Your task to perform on an android device: Do I have any events today? Image 0: 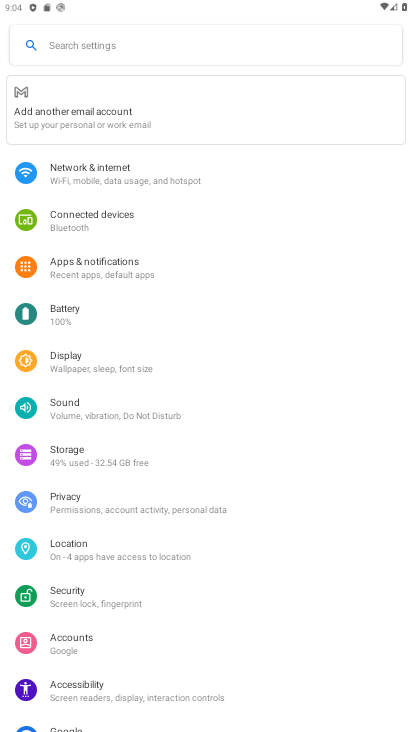
Step 0: press home button
Your task to perform on an android device: Do I have any events today? Image 1: 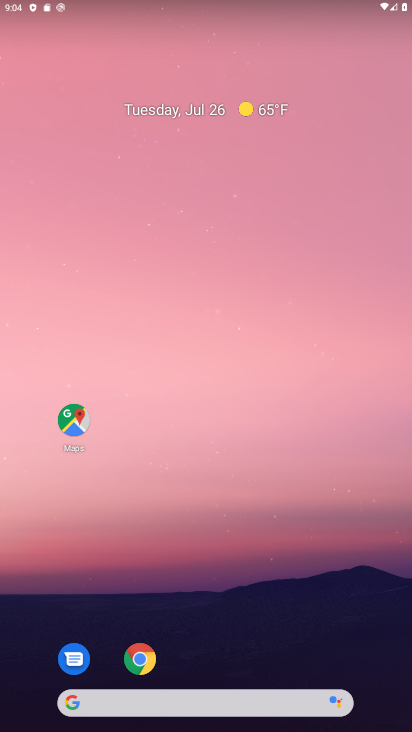
Step 1: drag from (155, 600) to (135, 184)
Your task to perform on an android device: Do I have any events today? Image 2: 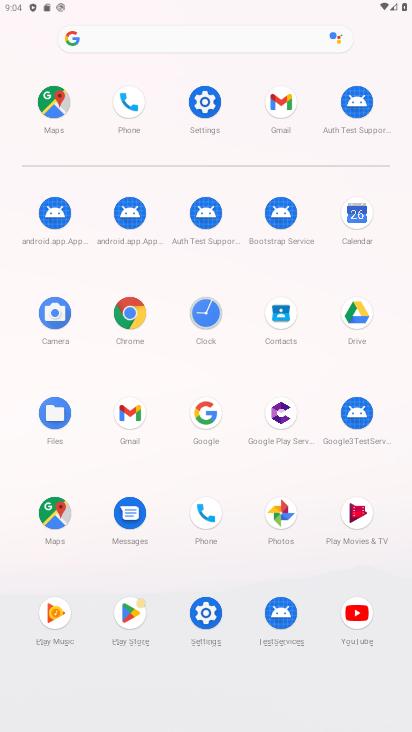
Step 2: click (360, 477)
Your task to perform on an android device: Do I have any events today? Image 3: 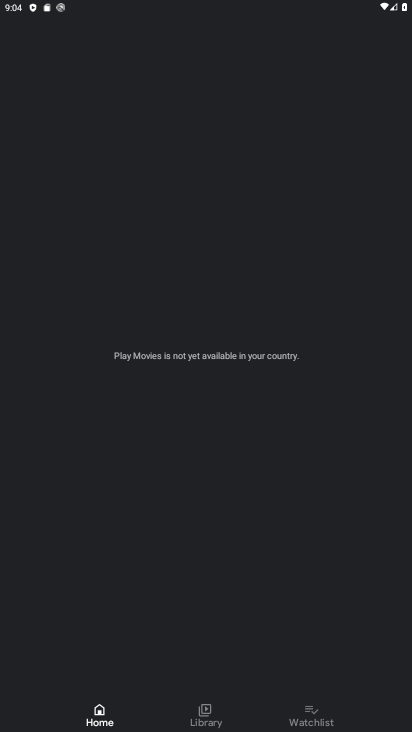
Step 3: press home button
Your task to perform on an android device: Do I have any events today? Image 4: 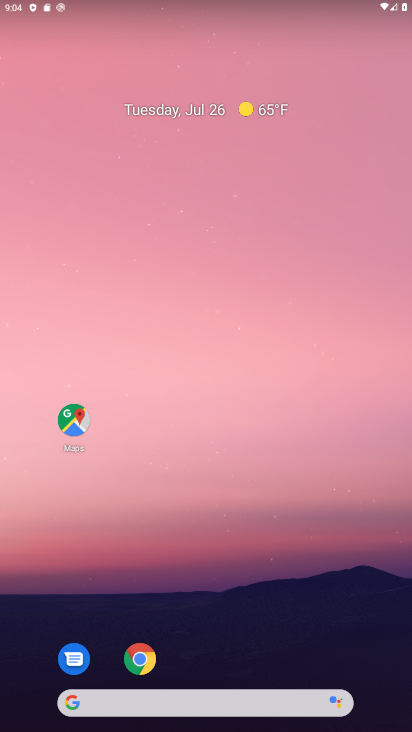
Step 4: drag from (217, 637) to (217, 187)
Your task to perform on an android device: Do I have any events today? Image 5: 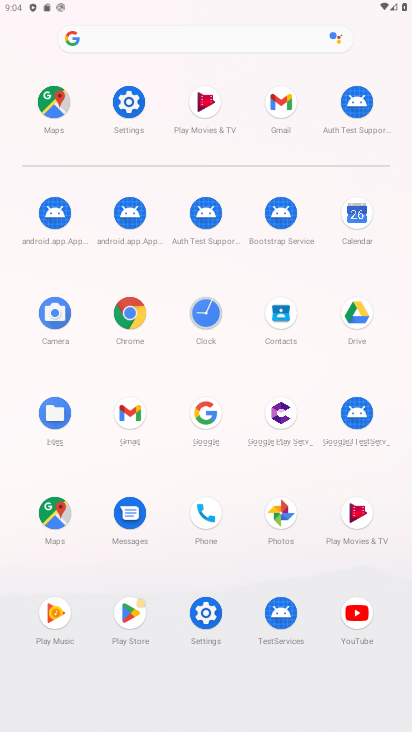
Step 5: click (346, 242)
Your task to perform on an android device: Do I have any events today? Image 6: 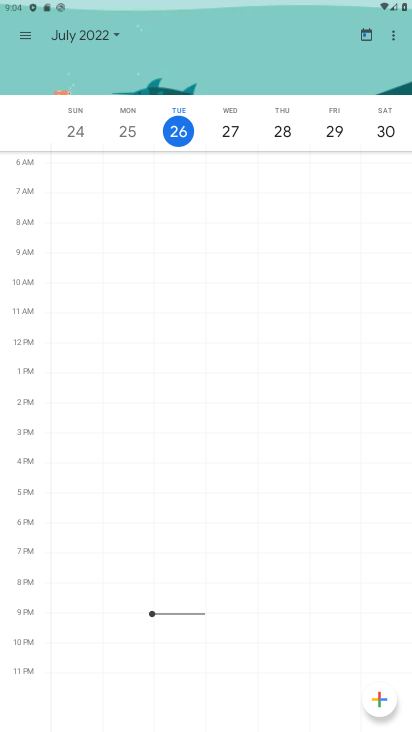
Step 6: task complete